Your task to perform on an android device: change notifications settings Image 0: 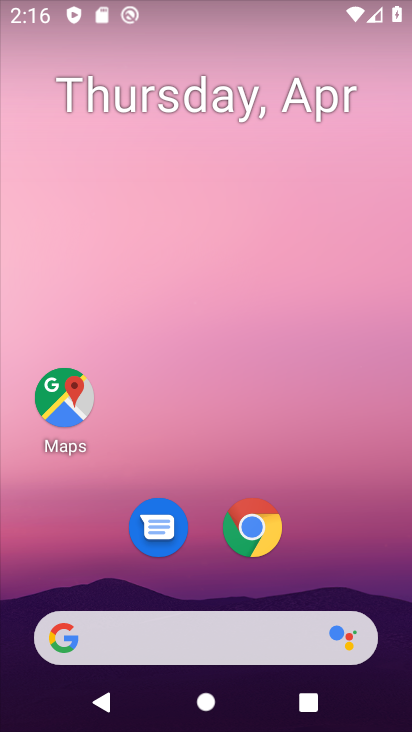
Step 0: drag from (333, 521) to (308, 94)
Your task to perform on an android device: change notifications settings Image 1: 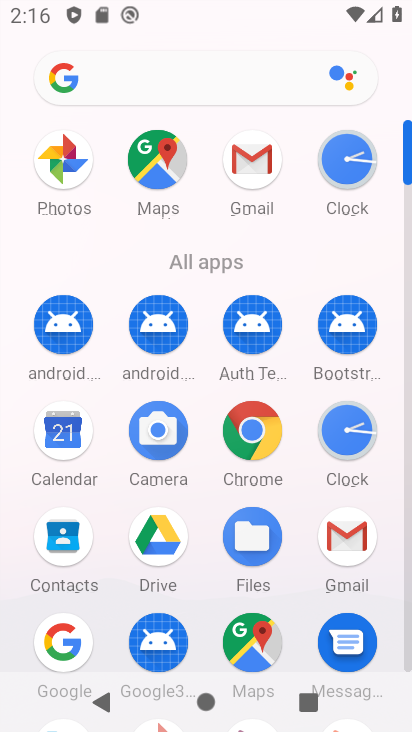
Step 1: drag from (295, 559) to (284, 276)
Your task to perform on an android device: change notifications settings Image 2: 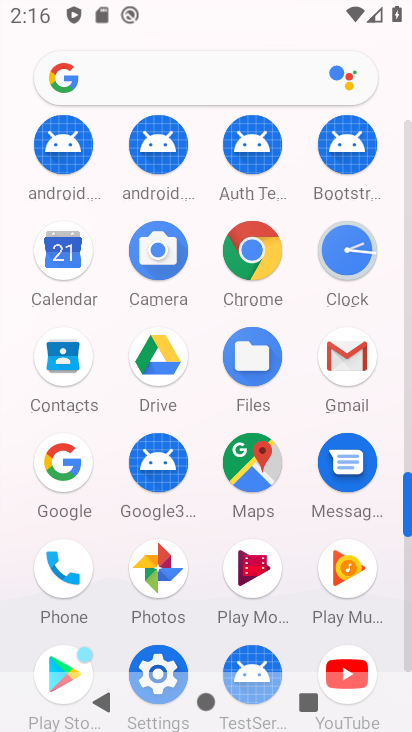
Step 2: drag from (220, 545) to (258, 327)
Your task to perform on an android device: change notifications settings Image 3: 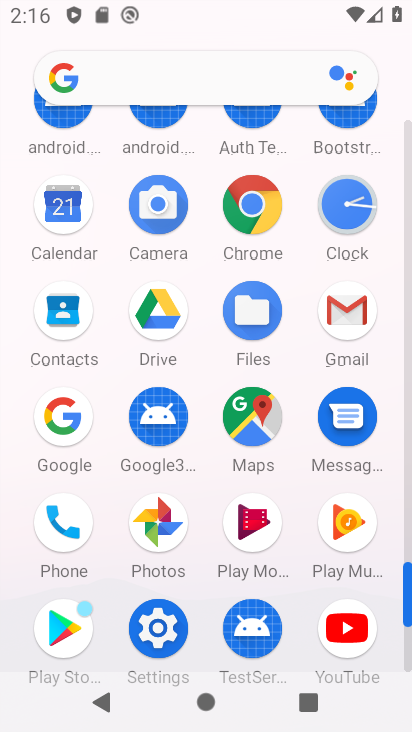
Step 3: click (162, 630)
Your task to perform on an android device: change notifications settings Image 4: 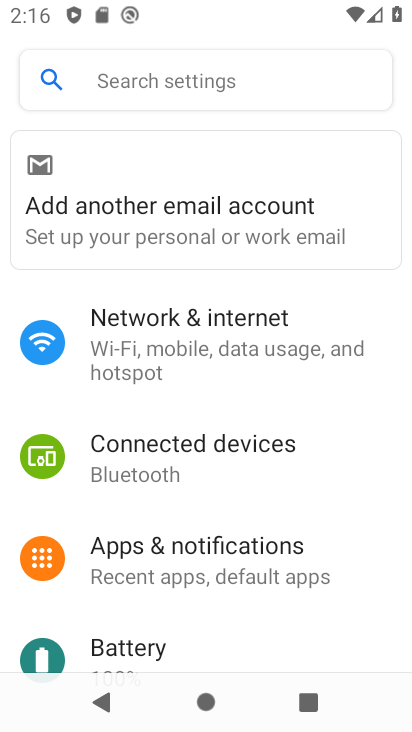
Step 4: drag from (233, 603) to (255, 328)
Your task to perform on an android device: change notifications settings Image 5: 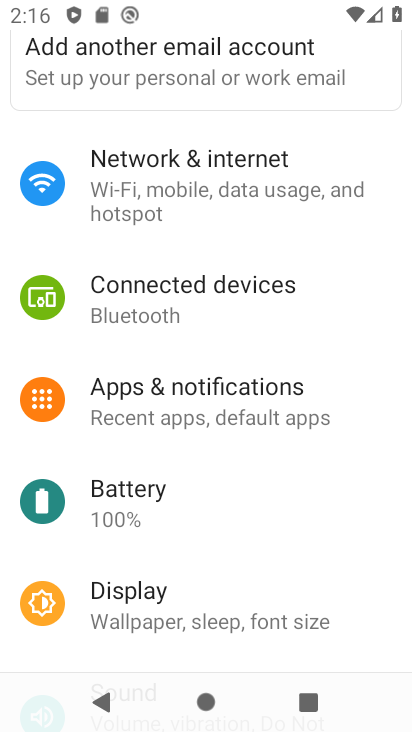
Step 5: click (227, 390)
Your task to perform on an android device: change notifications settings Image 6: 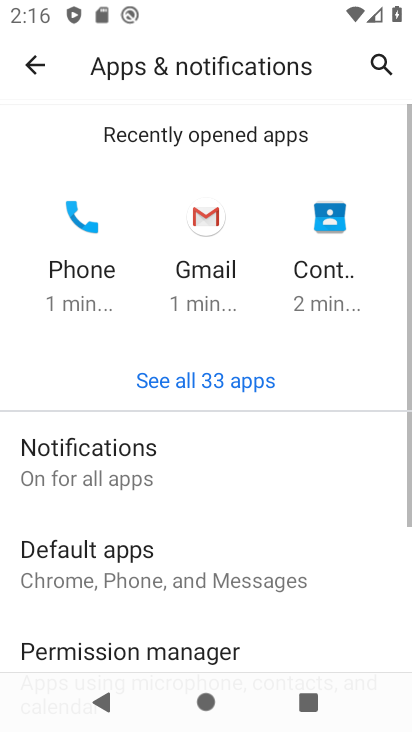
Step 6: click (115, 470)
Your task to perform on an android device: change notifications settings Image 7: 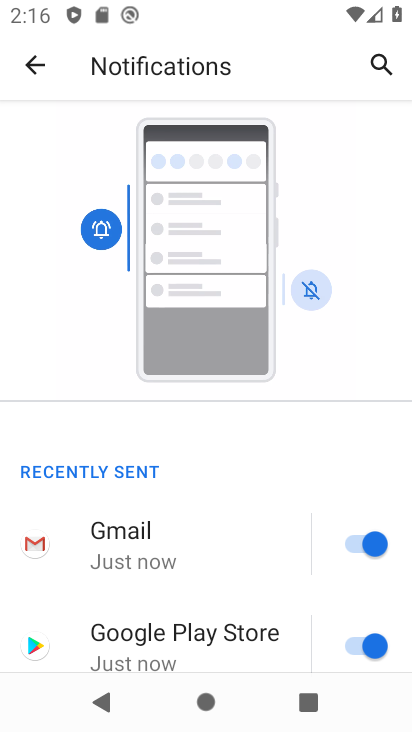
Step 7: task complete